Your task to perform on an android device: What's on my calendar tomorrow? Image 0: 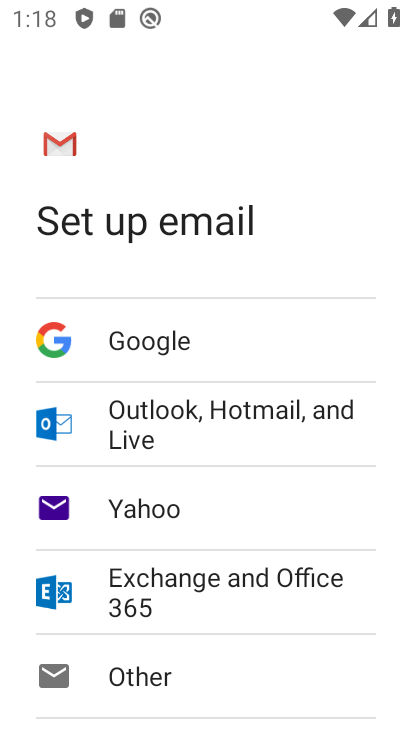
Step 0: press home button
Your task to perform on an android device: What's on my calendar tomorrow? Image 1: 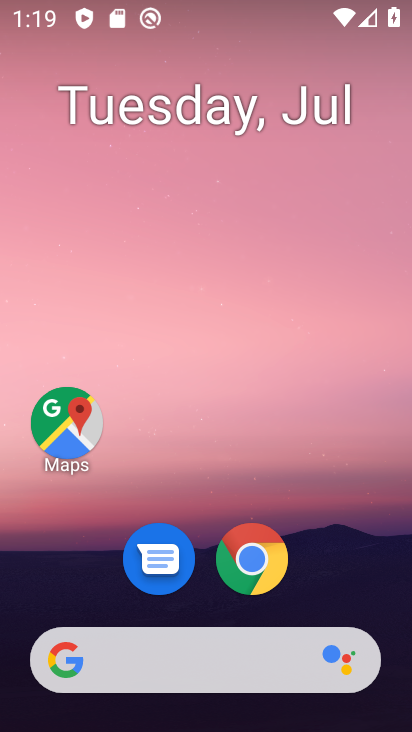
Step 1: drag from (343, 559) to (347, 90)
Your task to perform on an android device: What's on my calendar tomorrow? Image 2: 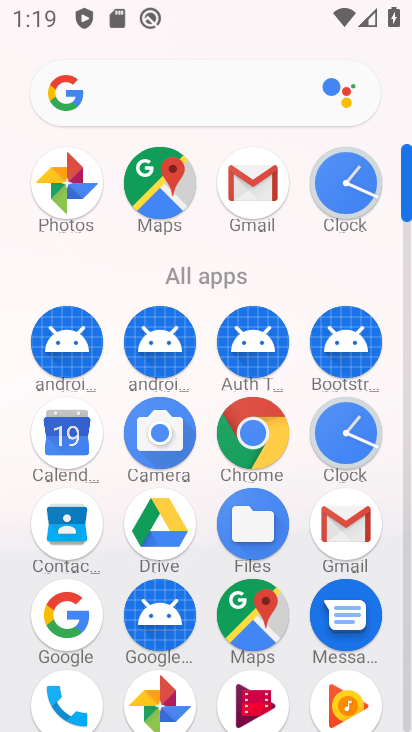
Step 2: click (60, 441)
Your task to perform on an android device: What's on my calendar tomorrow? Image 3: 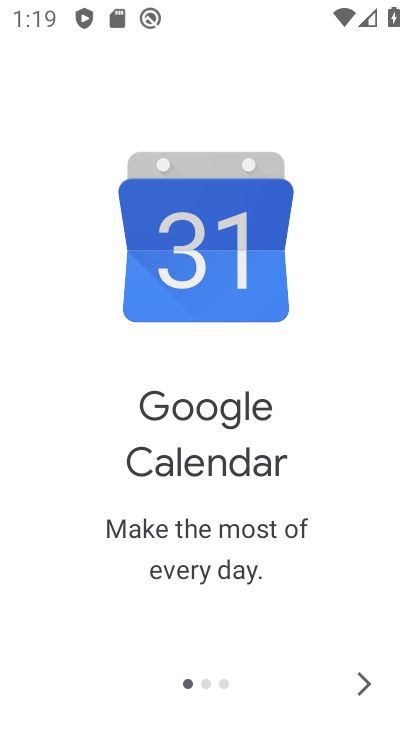
Step 3: click (358, 686)
Your task to perform on an android device: What's on my calendar tomorrow? Image 4: 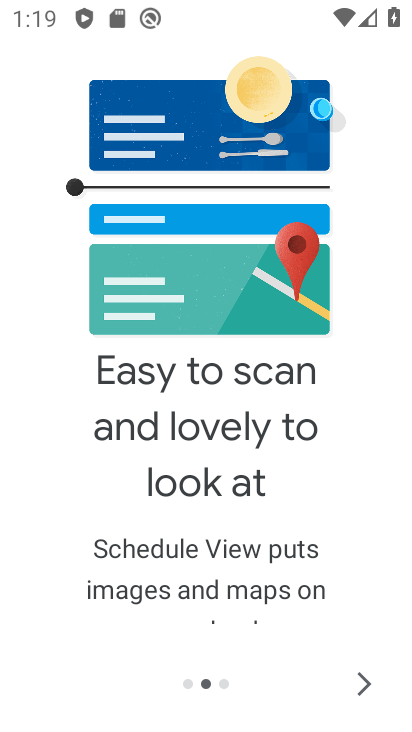
Step 4: click (358, 686)
Your task to perform on an android device: What's on my calendar tomorrow? Image 5: 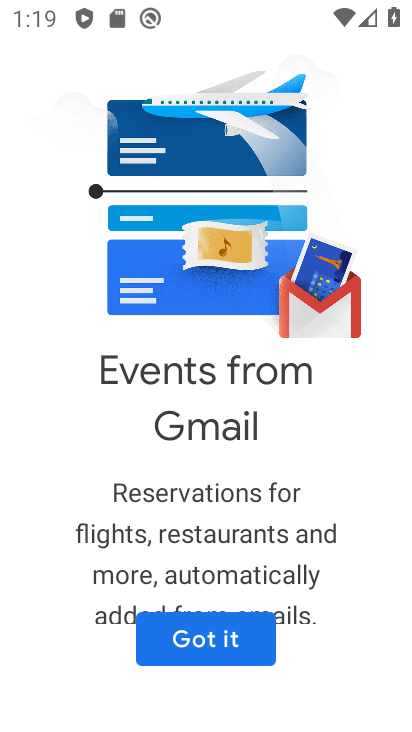
Step 5: click (252, 639)
Your task to perform on an android device: What's on my calendar tomorrow? Image 6: 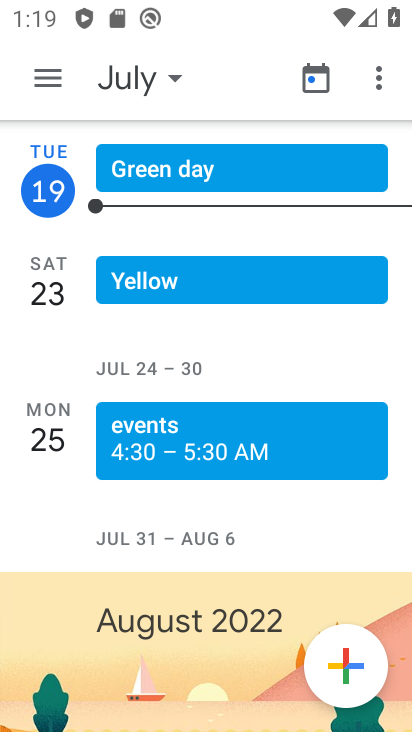
Step 6: click (183, 71)
Your task to perform on an android device: What's on my calendar tomorrow? Image 7: 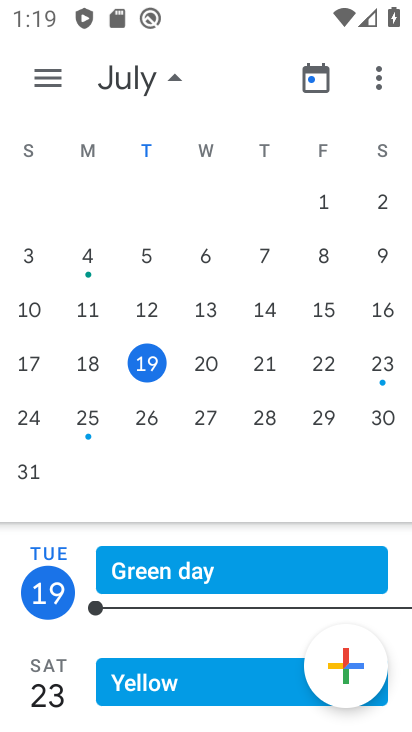
Step 7: click (202, 370)
Your task to perform on an android device: What's on my calendar tomorrow? Image 8: 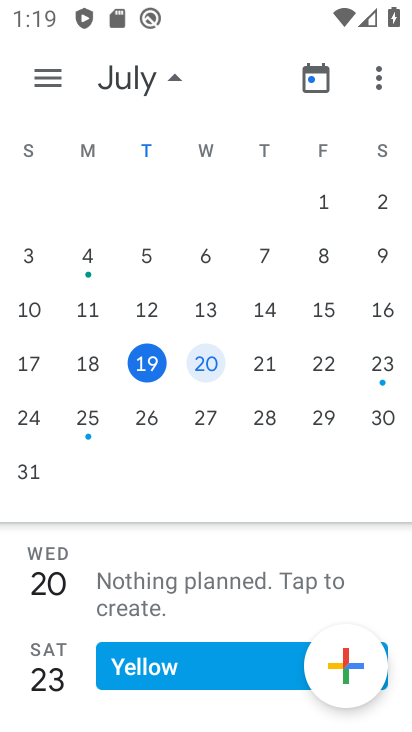
Step 8: task complete